Your task to perform on an android device: Show me recent news Image 0: 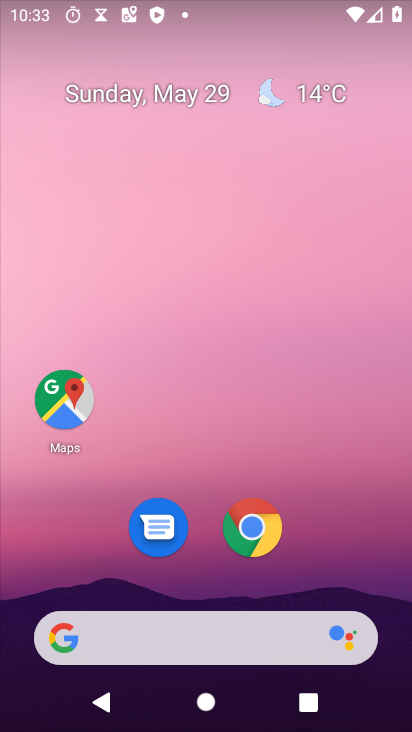
Step 0: click (72, 641)
Your task to perform on an android device: Show me recent news Image 1: 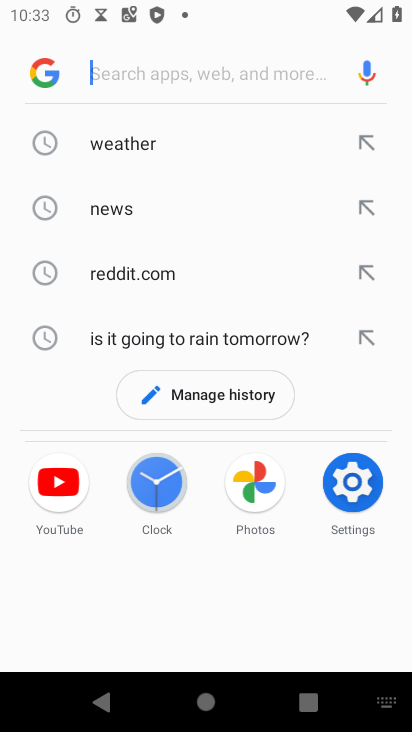
Step 1: click (120, 206)
Your task to perform on an android device: Show me recent news Image 2: 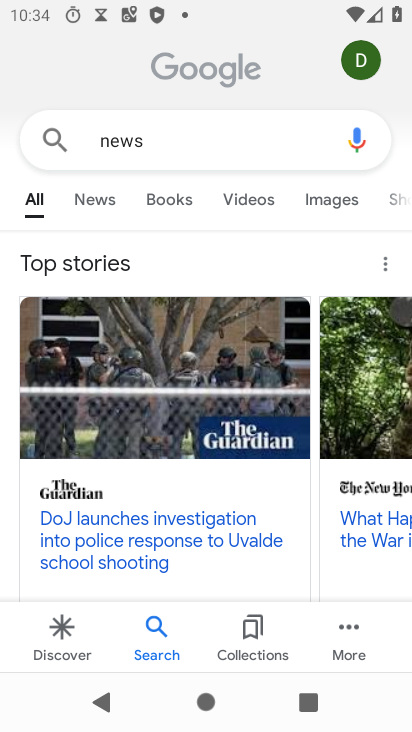
Step 2: click (84, 196)
Your task to perform on an android device: Show me recent news Image 3: 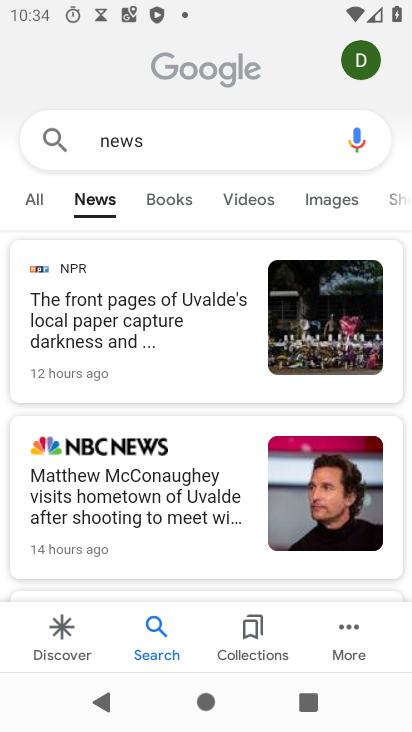
Step 3: task complete